Your task to perform on an android device: toggle javascript in the chrome app Image 0: 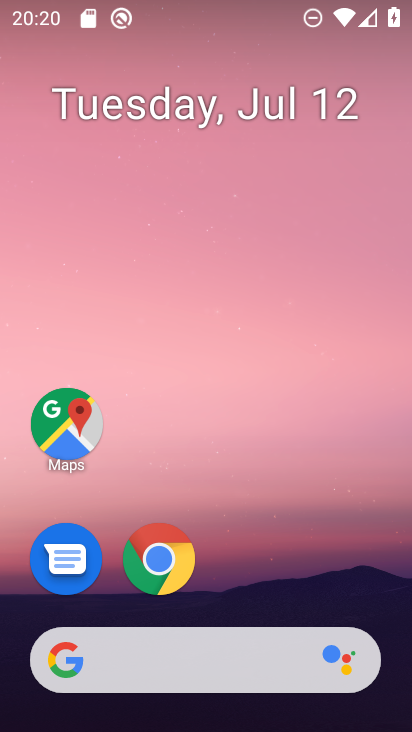
Step 0: drag from (351, 578) to (365, 120)
Your task to perform on an android device: toggle javascript in the chrome app Image 1: 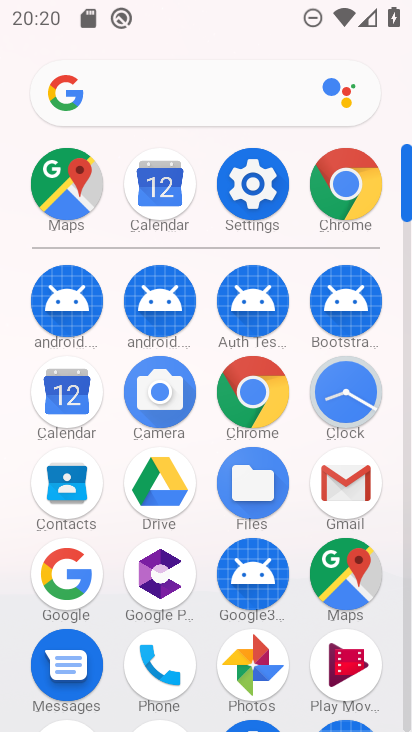
Step 1: click (265, 381)
Your task to perform on an android device: toggle javascript in the chrome app Image 2: 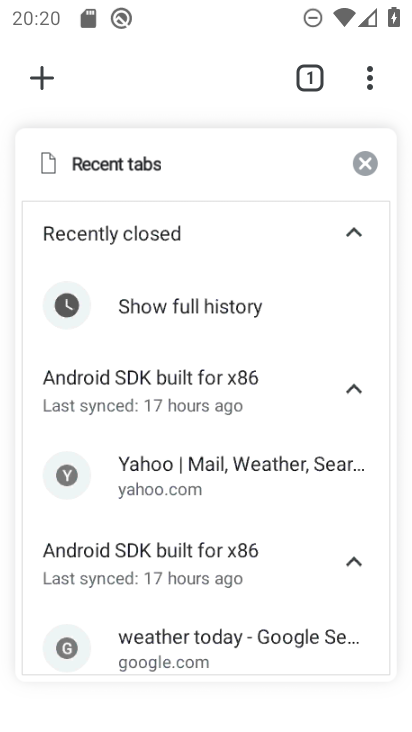
Step 2: click (373, 85)
Your task to perform on an android device: toggle javascript in the chrome app Image 3: 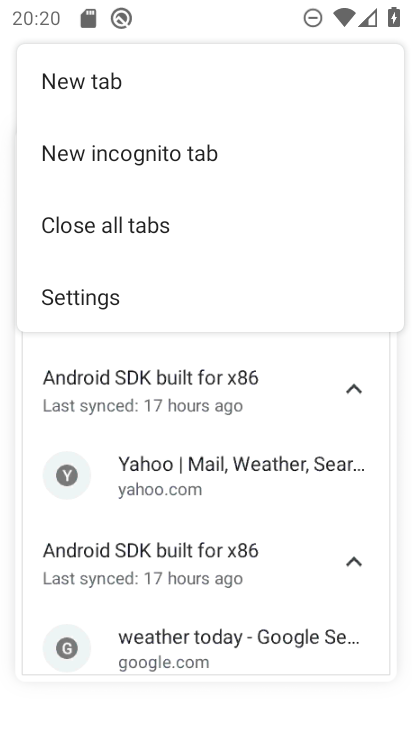
Step 3: click (216, 303)
Your task to perform on an android device: toggle javascript in the chrome app Image 4: 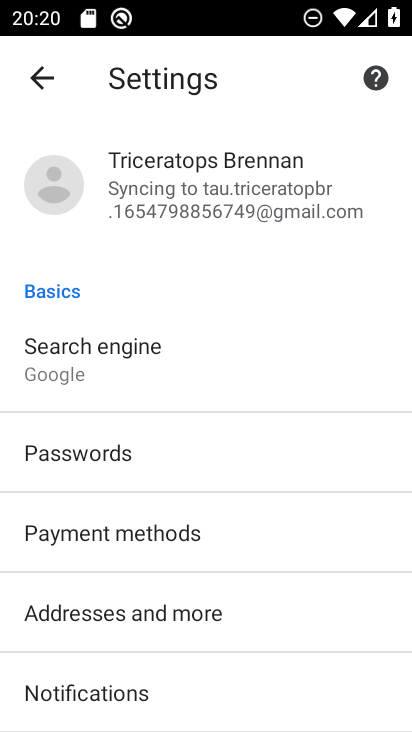
Step 4: drag from (317, 450) to (330, 372)
Your task to perform on an android device: toggle javascript in the chrome app Image 5: 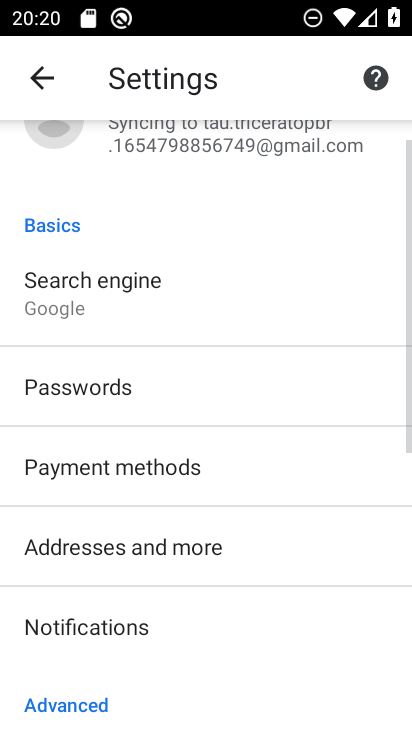
Step 5: drag from (337, 449) to (346, 360)
Your task to perform on an android device: toggle javascript in the chrome app Image 6: 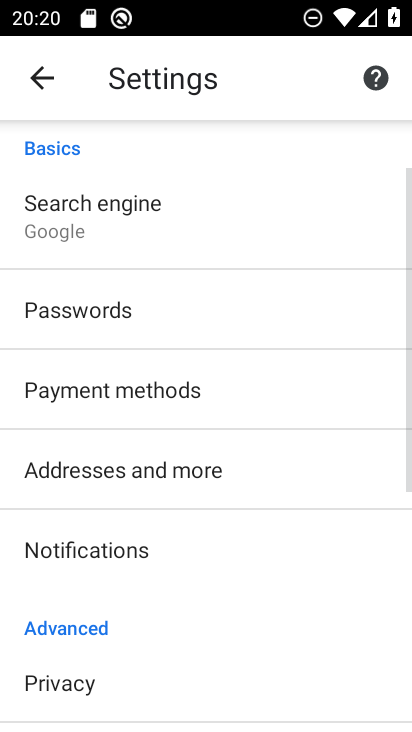
Step 6: drag from (337, 451) to (342, 363)
Your task to perform on an android device: toggle javascript in the chrome app Image 7: 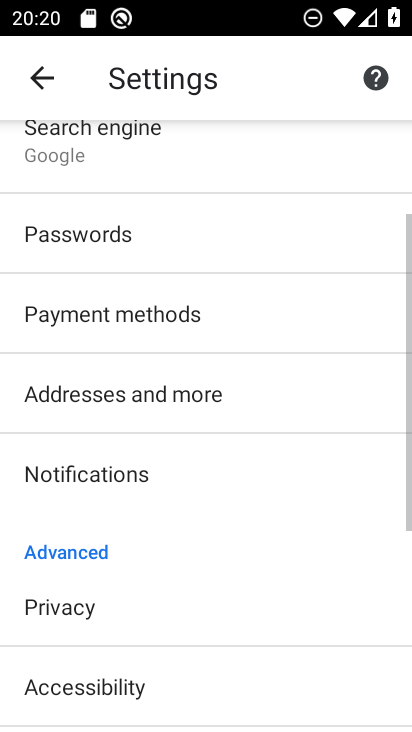
Step 7: drag from (341, 481) to (354, 401)
Your task to perform on an android device: toggle javascript in the chrome app Image 8: 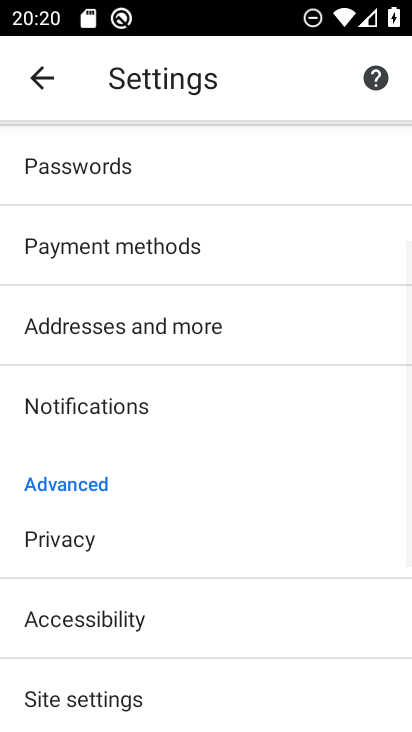
Step 8: drag from (354, 496) to (357, 402)
Your task to perform on an android device: toggle javascript in the chrome app Image 9: 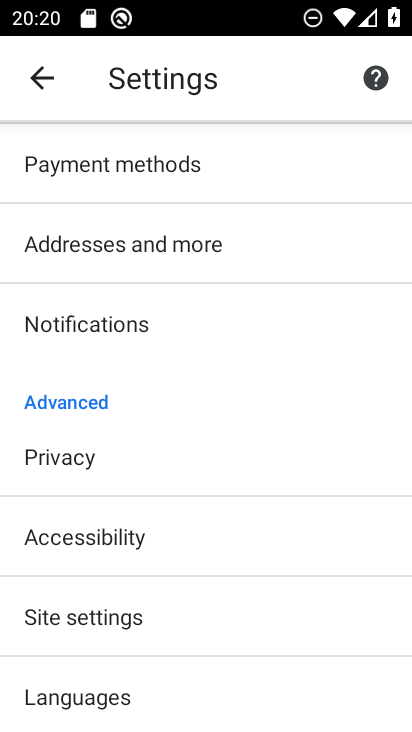
Step 9: drag from (339, 509) to (343, 424)
Your task to perform on an android device: toggle javascript in the chrome app Image 10: 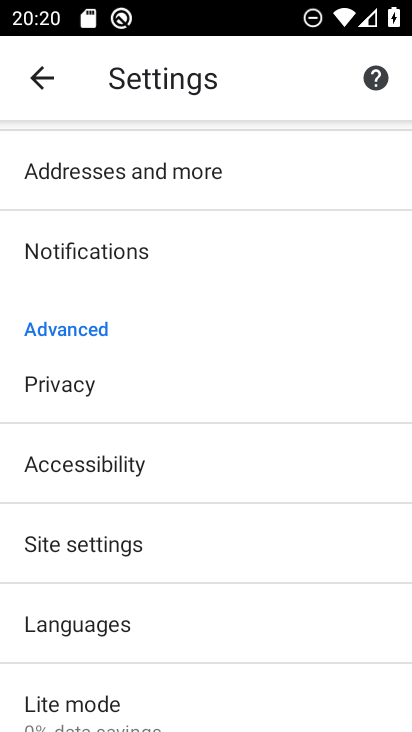
Step 10: drag from (333, 514) to (346, 433)
Your task to perform on an android device: toggle javascript in the chrome app Image 11: 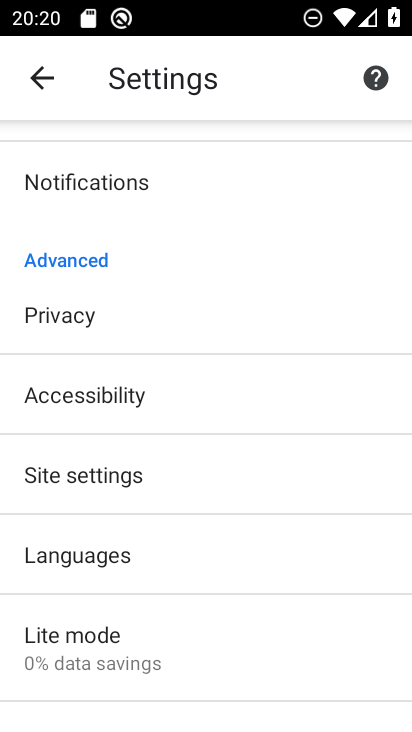
Step 11: drag from (333, 500) to (331, 284)
Your task to perform on an android device: toggle javascript in the chrome app Image 12: 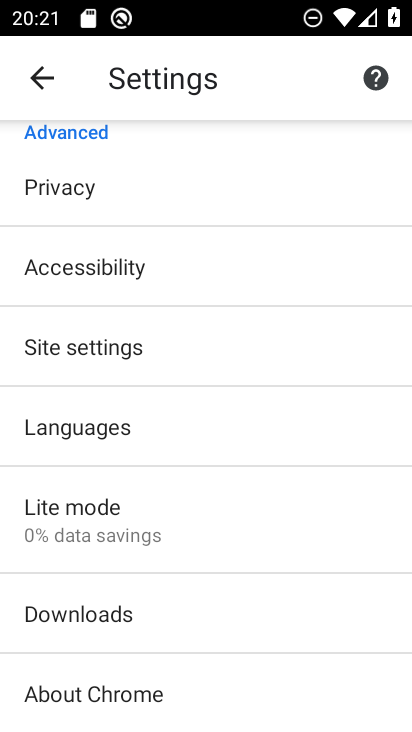
Step 12: drag from (331, 247) to (330, 326)
Your task to perform on an android device: toggle javascript in the chrome app Image 13: 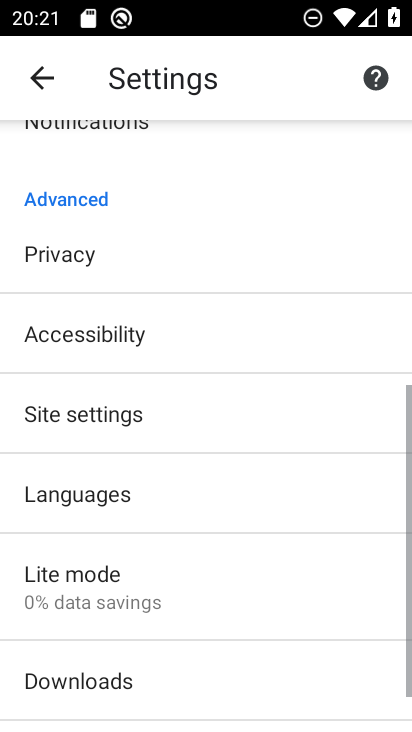
Step 13: drag from (321, 238) to (321, 323)
Your task to perform on an android device: toggle javascript in the chrome app Image 14: 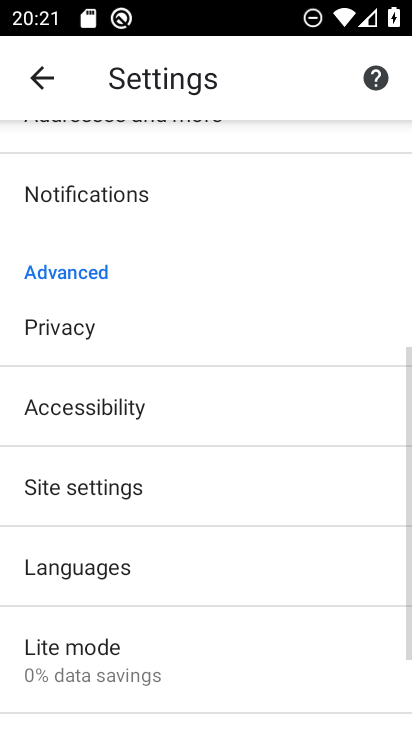
Step 14: drag from (320, 248) to (322, 342)
Your task to perform on an android device: toggle javascript in the chrome app Image 15: 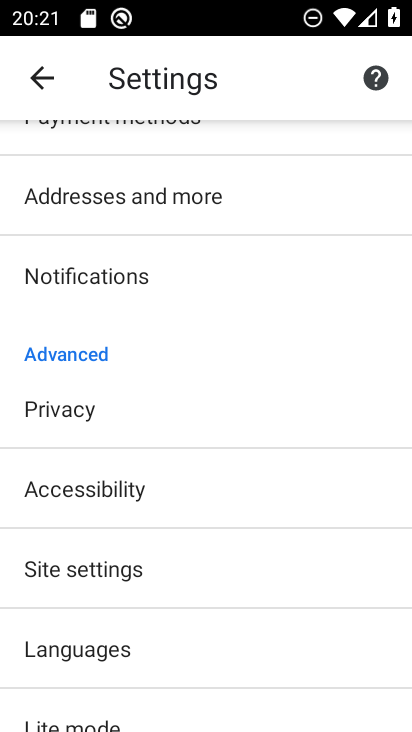
Step 15: drag from (323, 274) to (320, 393)
Your task to perform on an android device: toggle javascript in the chrome app Image 16: 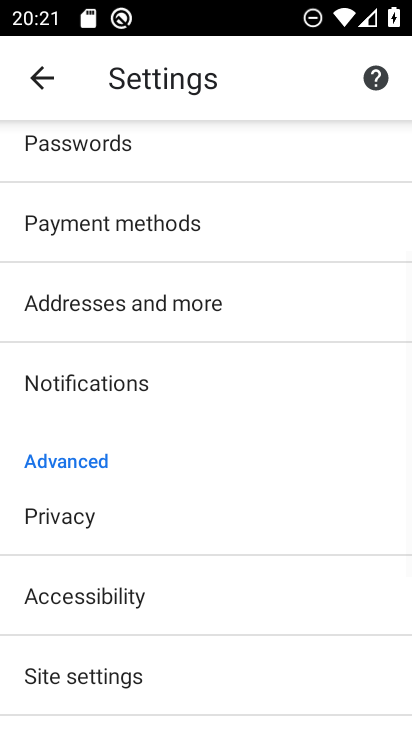
Step 16: drag from (302, 485) to (311, 351)
Your task to perform on an android device: toggle javascript in the chrome app Image 17: 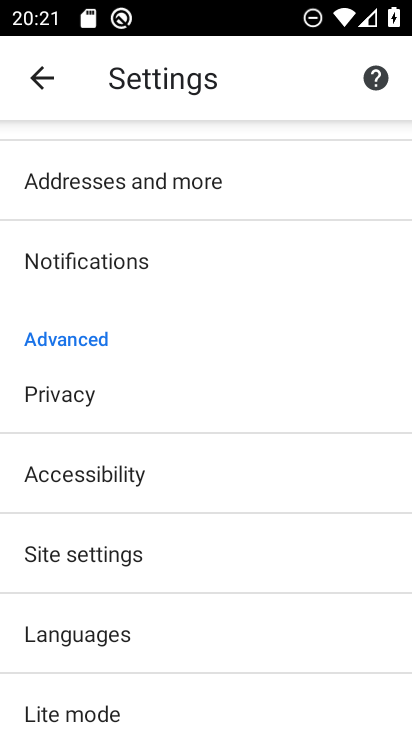
Step 17: drag from (307, 533) to (313, 408)
Your task to perform on an android device: toggle javascript in the chrome app Image 18: 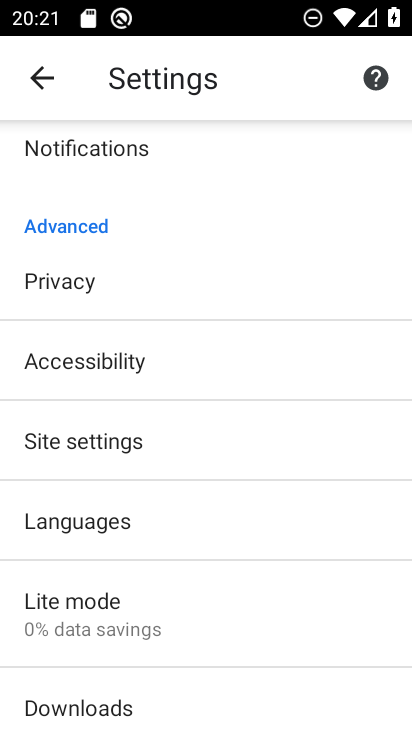
Step 18: click (278, 436)
Your task to perform on an android device: toggle javascript in the chrome app Image 19: 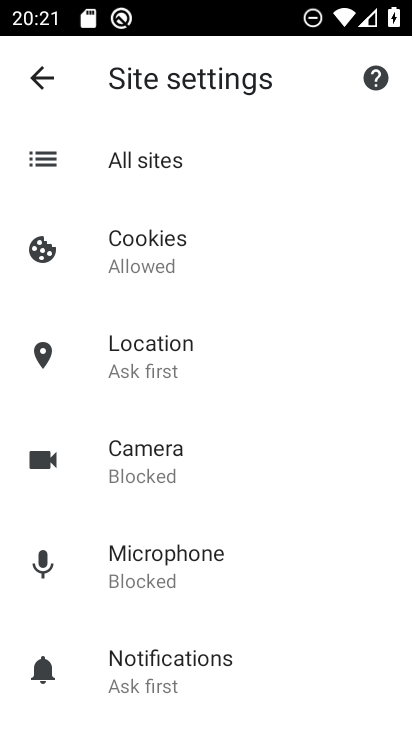
Step 19: drag from (288, 492) to (302, 311)
Your task to perform on an android device: toggle javascript in the chrome app Image 20: 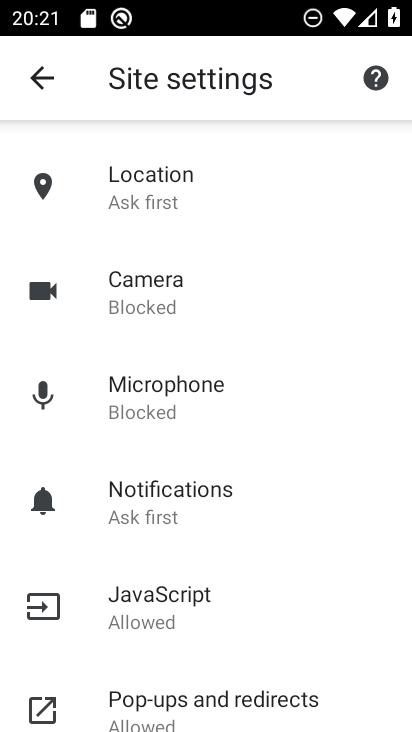
Step 20: drag from (314, 513) to (323, 363)
Your task to perform on an android device: toggle javascript in the chrome app Image 21: 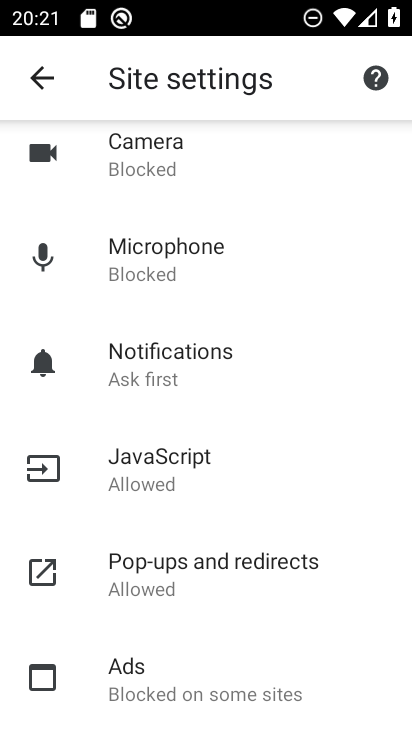
Step 21: click (276, 488)
Your task to perform on an android device: toggle javascript in the chrome app Image 22: 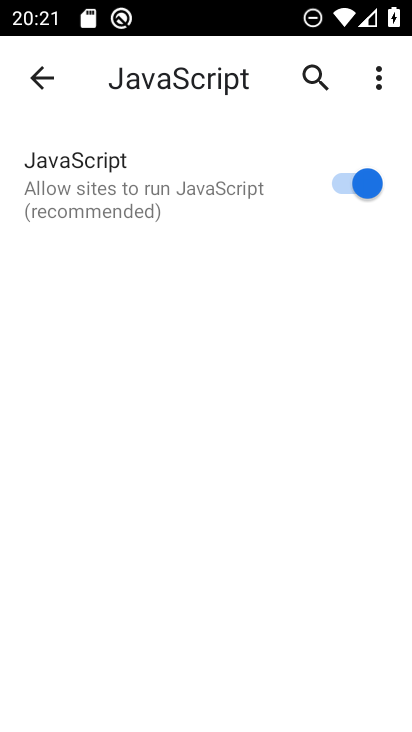
Step 22: click (374, 178)
Your task to perform on an android device: toggle javascript in the chrome app Image 23: 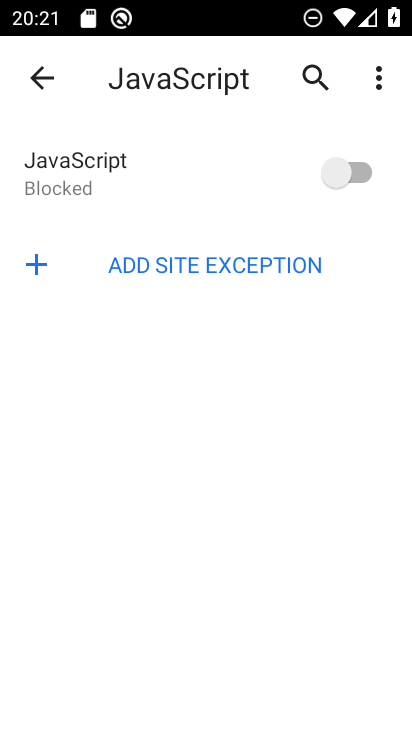
Step 23: click (353, 174)
Your task to perform on an android device: toggle javascript in the chrome app Image 24: 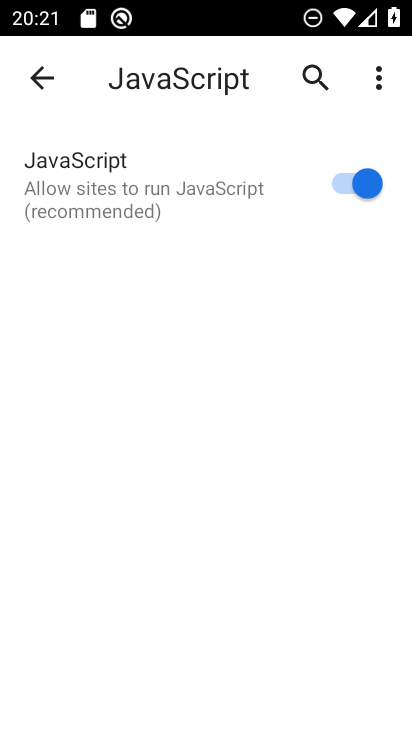
Step 24: task complete